Your task to perform on an android device: Open sound settings Image 0: 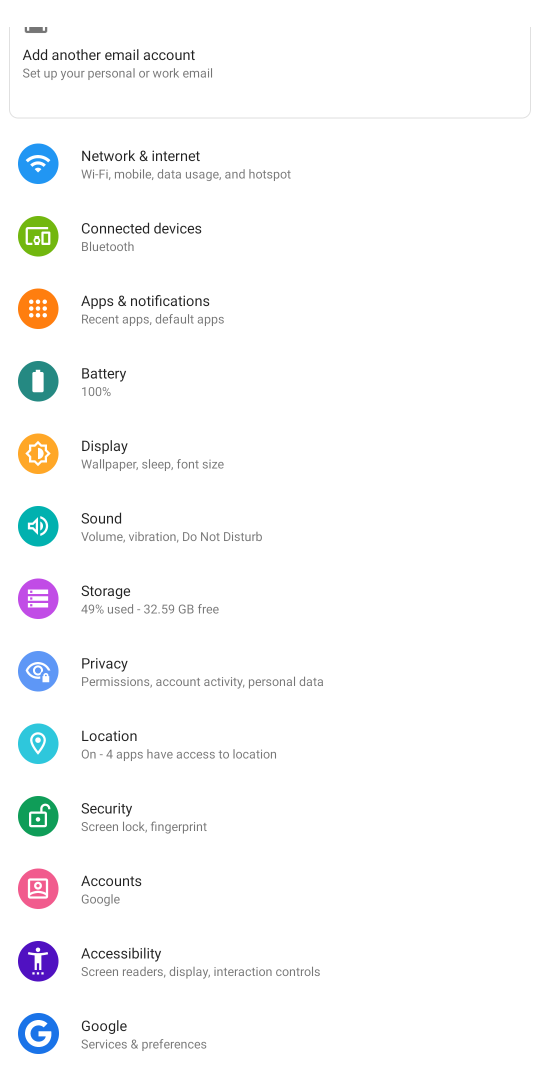
Step 0: press home button
Your task to perform on an android device: Open sound settings Image 1: 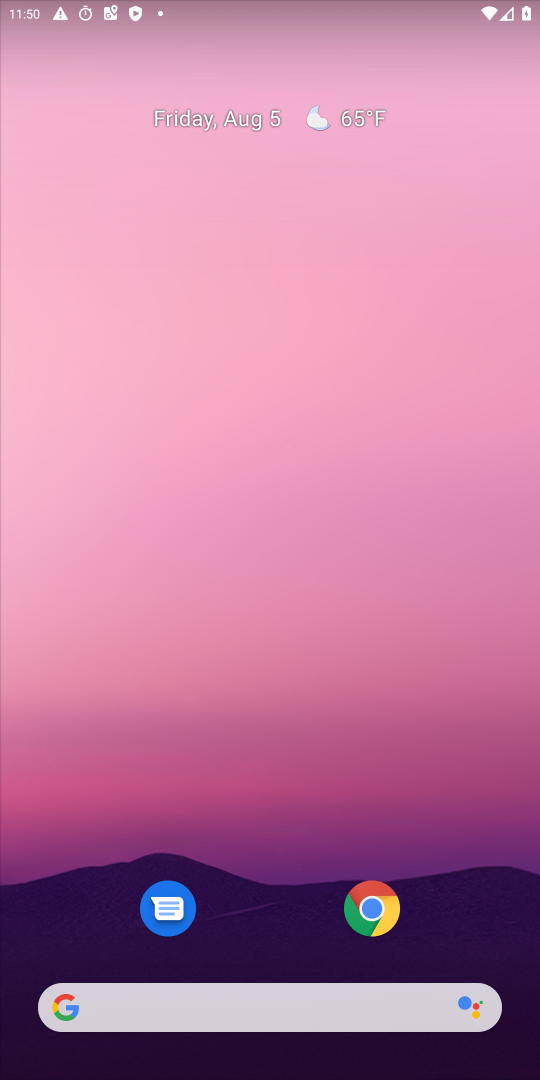
Step 1: drag from (66, 1067) to (263, 562)
Your task to perform on an android device: Open sound settings Image 2: 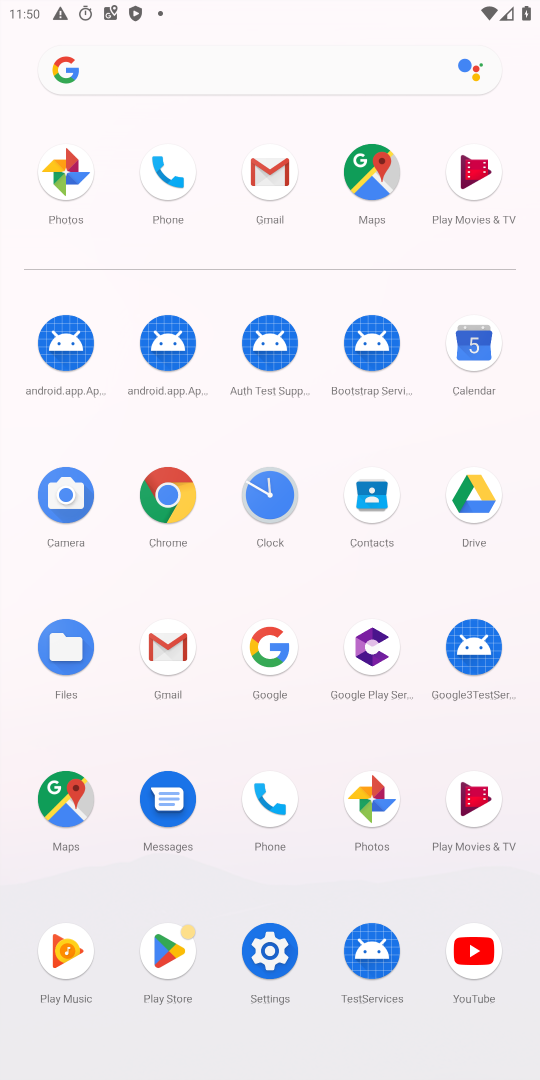
Step 2: click (277, 958)
Your task to perform on an android device: Open sound settings Image 3: 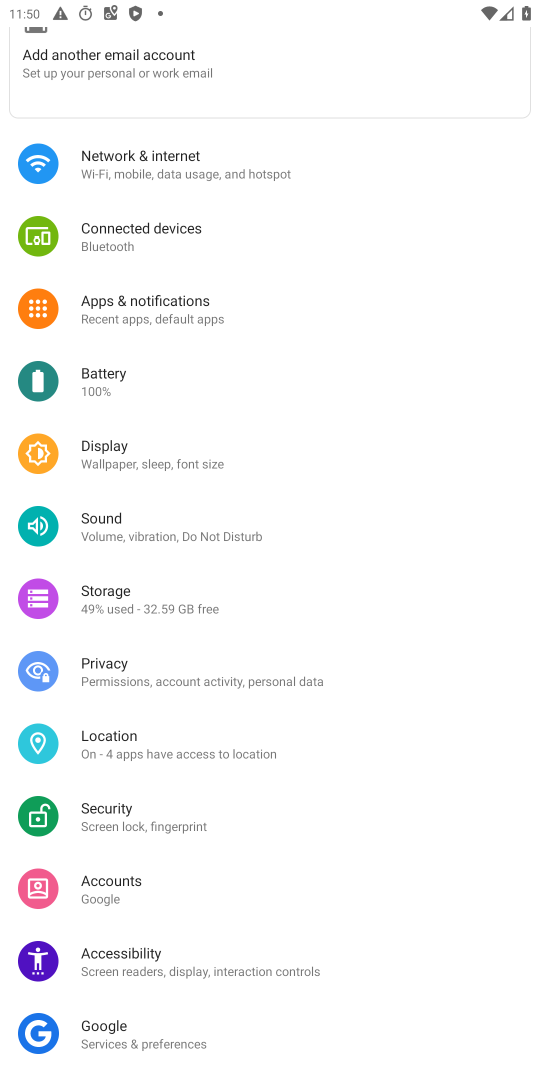
Step 3: click (115, 534)
Your task to perform on an android device: Open sound settings Image 4: 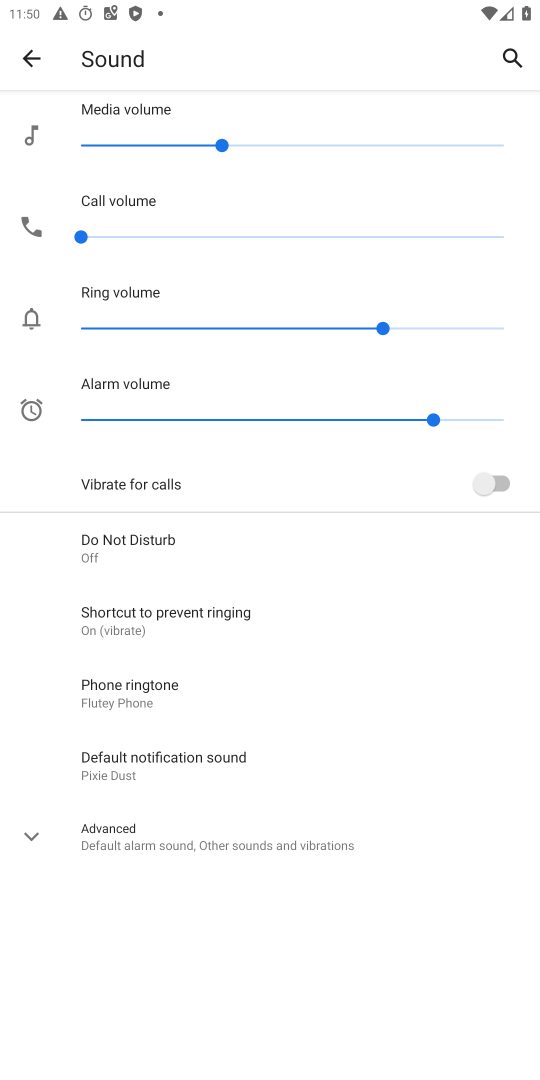
Step 4: task complete